Your task to perform on an android device: Open settings Image 0: 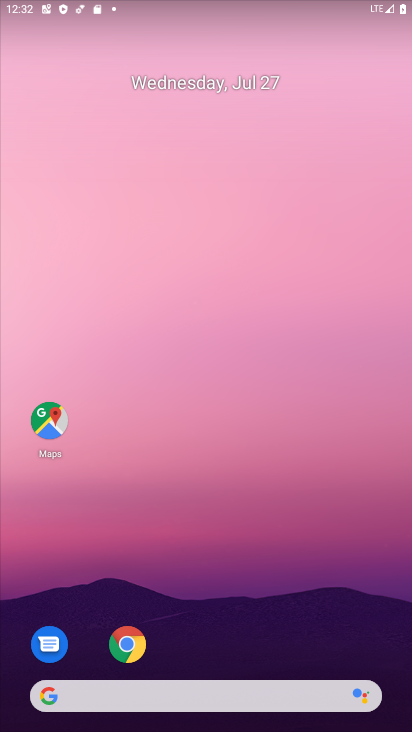
Step 0: drag from (214, 667) to (255, 13)
Your task to perform on an android device: Open settings Image 1: 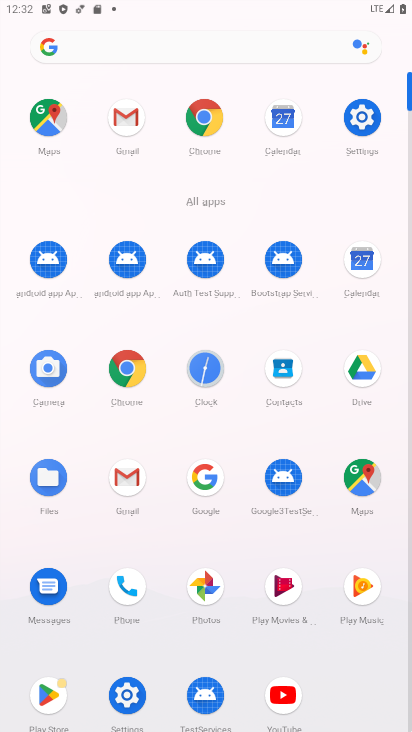
Step 1: click (141, 694)
Your task to perform on an android device: Open settings Image 2: 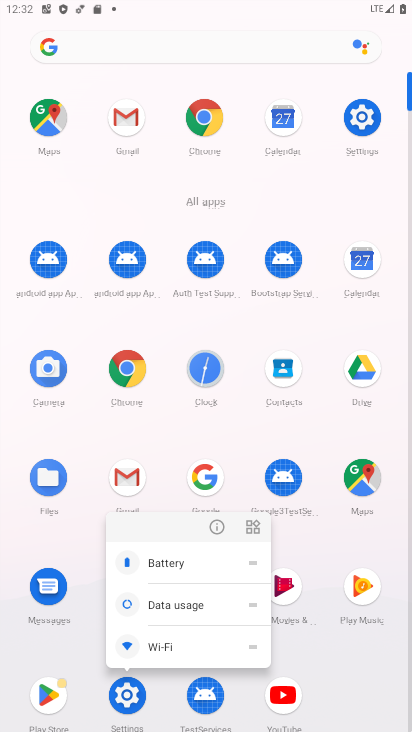
Step 2: click (125, 708)
Your task to perform on an android device: Open settings Image 3: 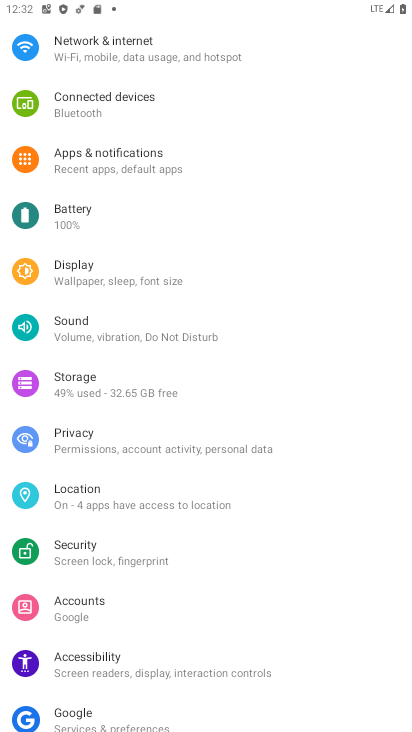
Step 3: task complete